Your task to perform on an android device: Open internet settings Image 0: 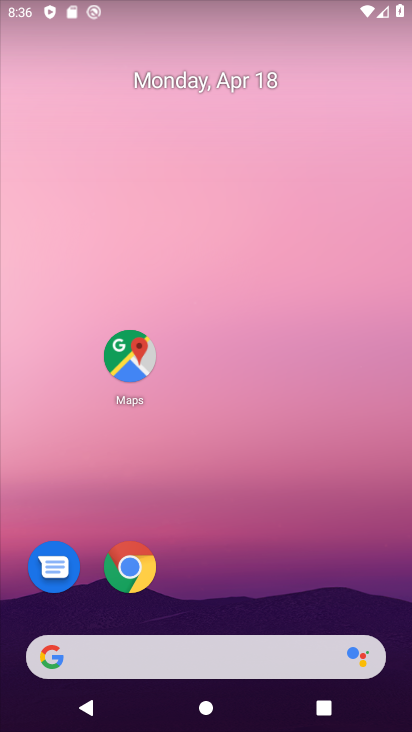
Step 0: drag from (225, 672) to (346, 106)
Your task to perform on an android device: Open internet settings Image 1: 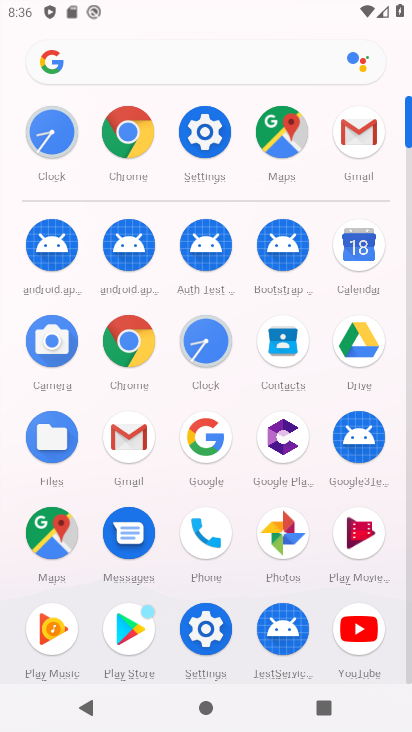
Step 1: click (225, 138)
Your task to perform on an android device: Open internet settings Image 2: 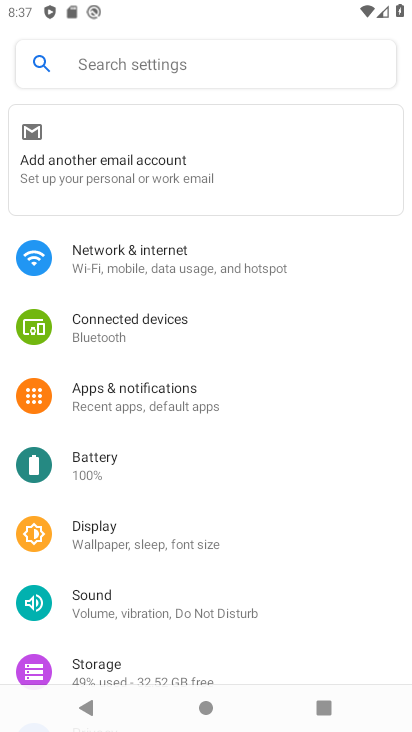
Step 2: click (129, 276)
Your task to perform on an android device: Open internet settings Image 3: 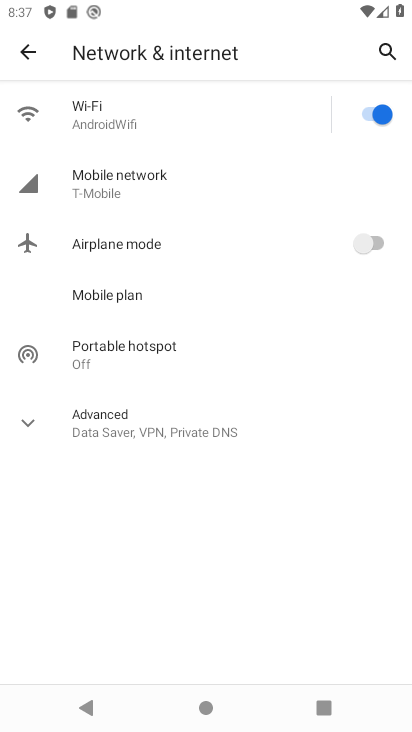
Step 3: task complete